Your task to perform on an android device: turn on the 12-hour format for clock Image 0: 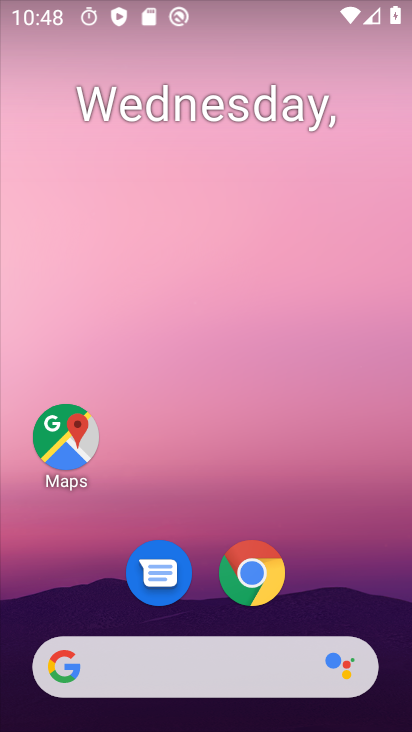
Step 0: click (337, 204)
Your task to perform on an android device: turn on the 12-hour format for clock Image 1: 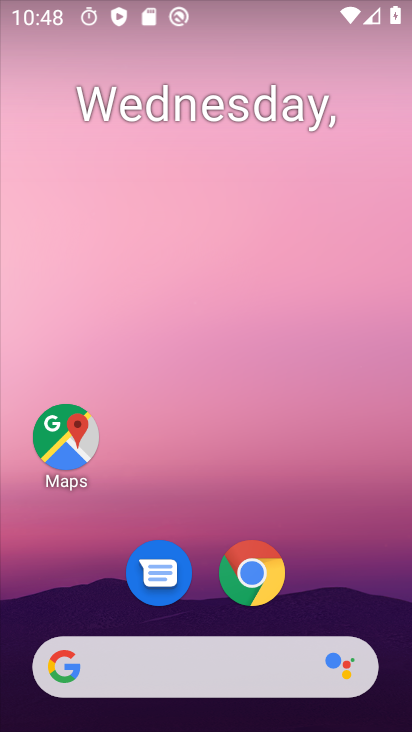
Step 1: drag from (361, 282) to (359, 241)
Your task to perform on an android device: turn on the 12-hour format for clock Image 2: 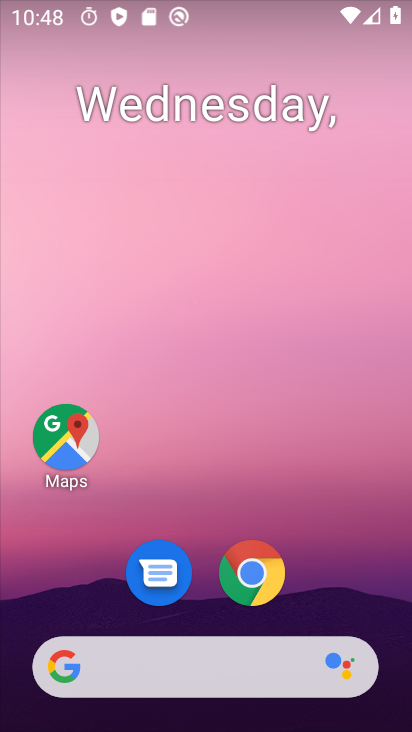
Step 2: drag from (399, 429) to (398, 86)
Your task to perform on an android device: turn on the 12-hour format for clock Image 3: 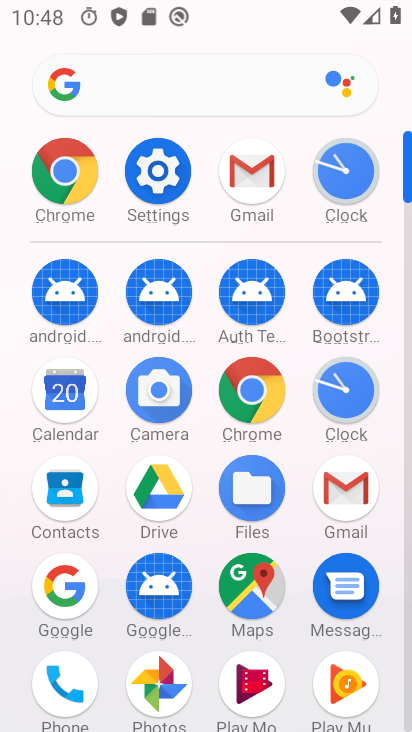
Step 3: click (354, 393)
Your task to perform on an android device: turn on the 12-hour format for clock Image 4: 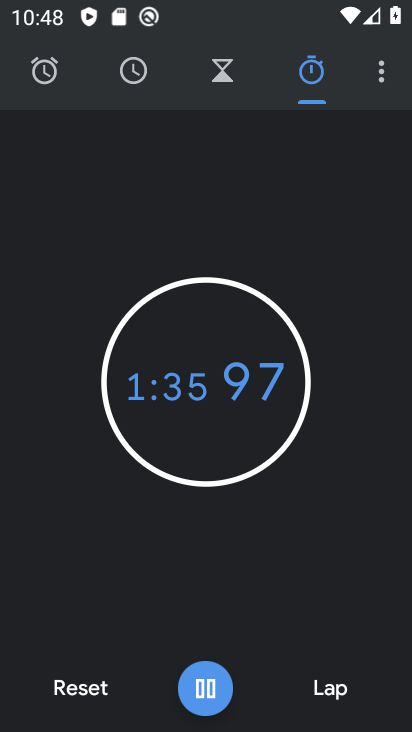
Step 4: click (380, 64)
Your task to perform on an android device: turn on the 12-hour format for clock Image 5: 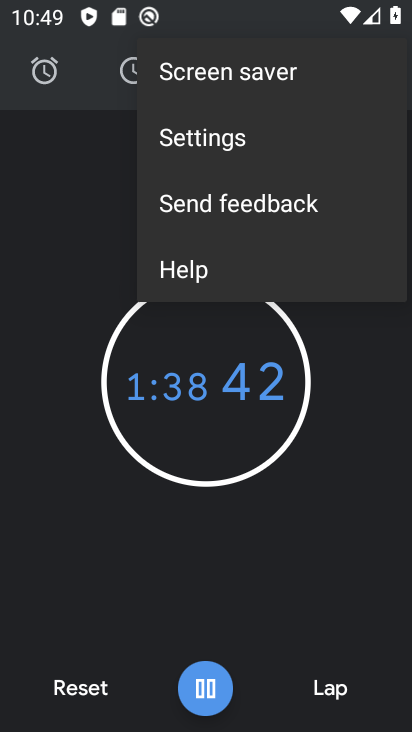
Step 5: click (225, 135)
Your task to perform on an android device: turn on the 12-hour format for clock Image 6: 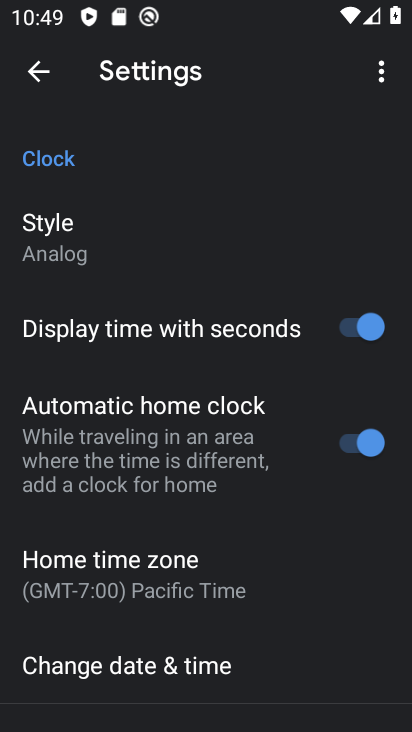
Step 6: drag from (308, 473) to (309, 241)
Your task to perform on an android device: turn on the 12-hour format for clock Image 7: 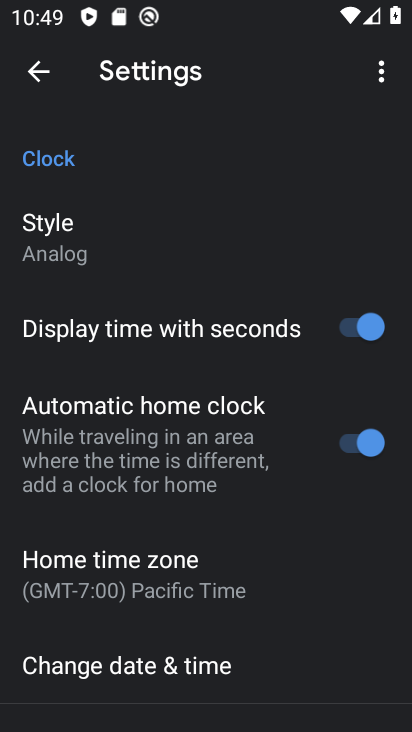
Step 7: click (135, 656)
Your task to perform on an android device: turn on the 12-hour format for clock Image 8: 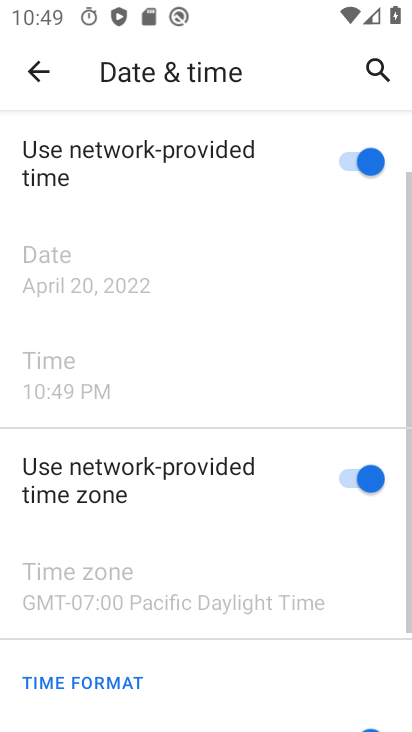
Step 8: task complete